Your task to perform on an android device: Clear the cart on bestbuy.com. Add "razer naga" to the cart on bestbuy.com, then select checkout. Image 0: 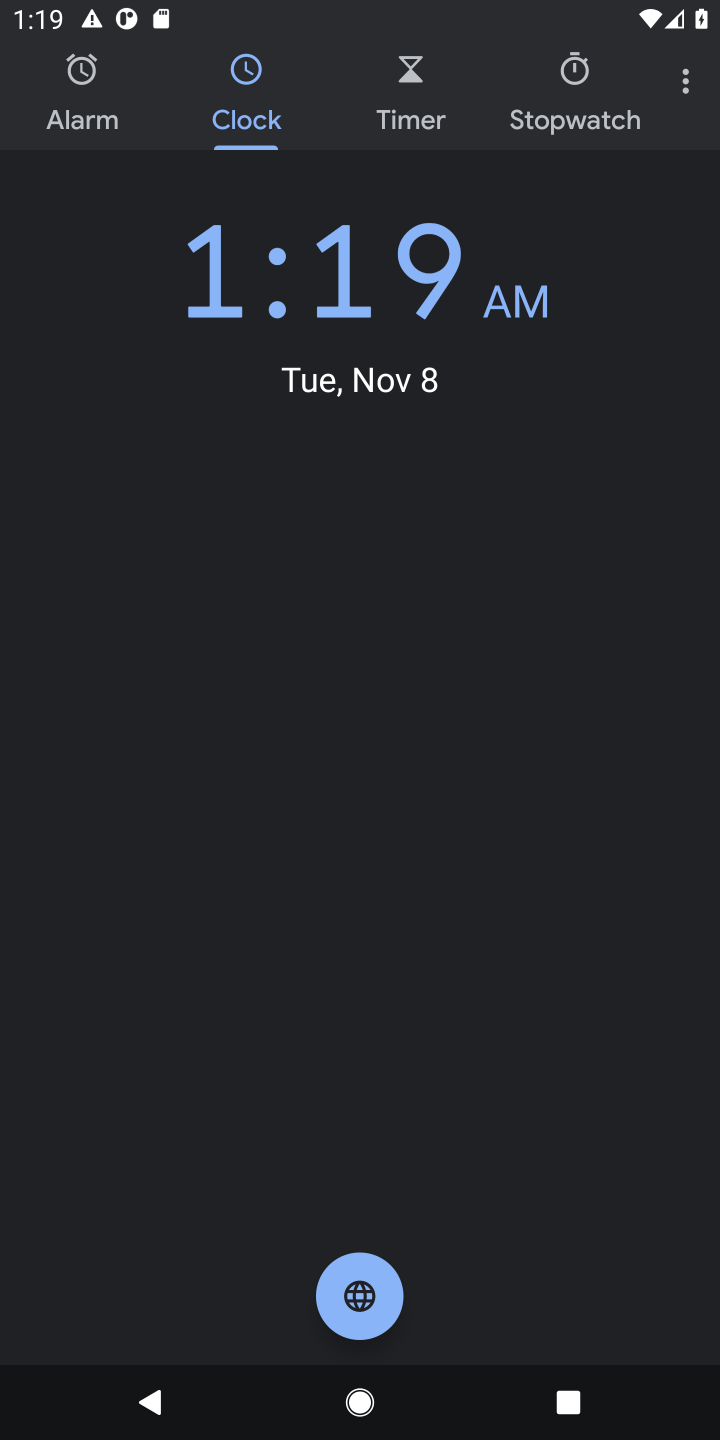
Step 0: task complete